Your task to perform on an android device: check data usage Image 0: 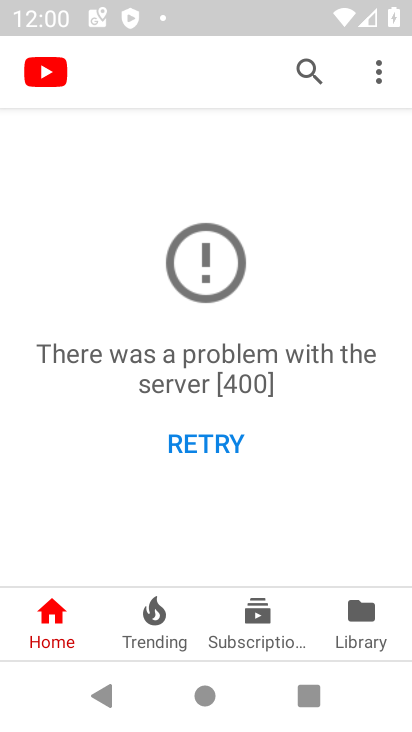
Step 0: press home button
Your task to perform on an android device: check data usage Image 1: 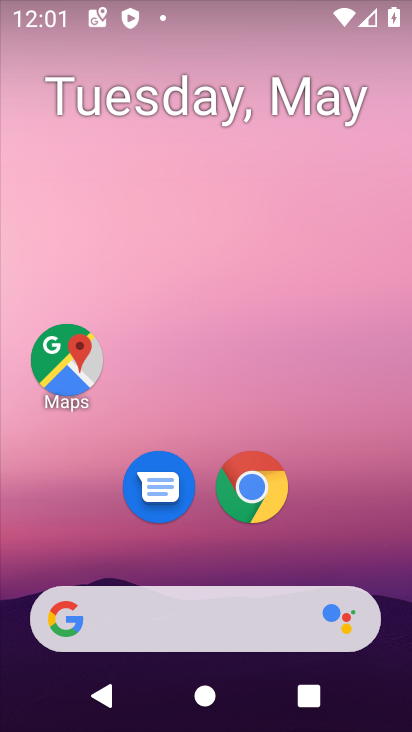
Step 1: drag from (379, 509) to (372, 187)
Your task to perform on an android device: check data usage Image 2: 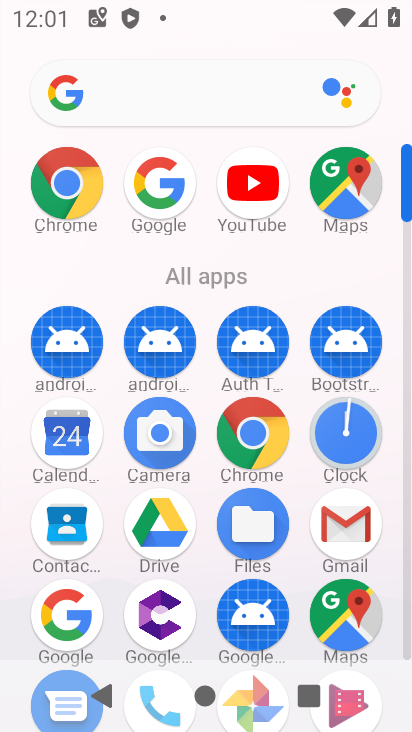
Step 2: drag from (300, 573) to (290, 338)
Your task to perform on an android device: check data usage Image 3: 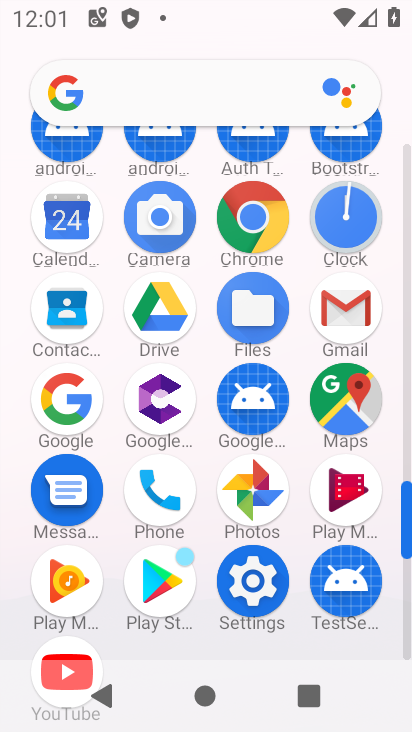
Step 3: drag from (295, 537) to (279, 396)
Your task to perform on an android device: check data usage Image 4: 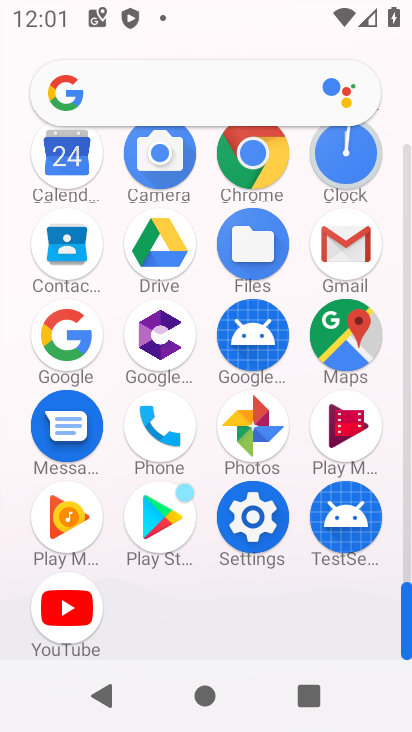
Step 4: click (258, 545)
Your task to perform on an android device: check data usage Image 5: 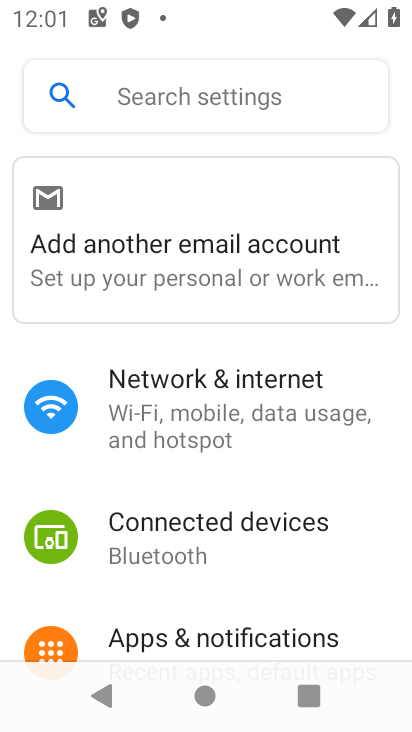
Step 5: drag from (369, 609) to (363, 475)
Your task to perform on an android device: check data usage Image 6: 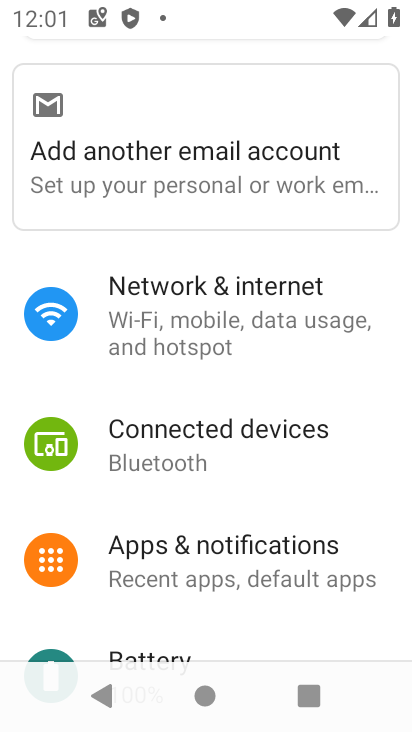
Step 6: drag from (358, 614) to (372, 466)
Your task to perform on an android device: check data usage Image 7: 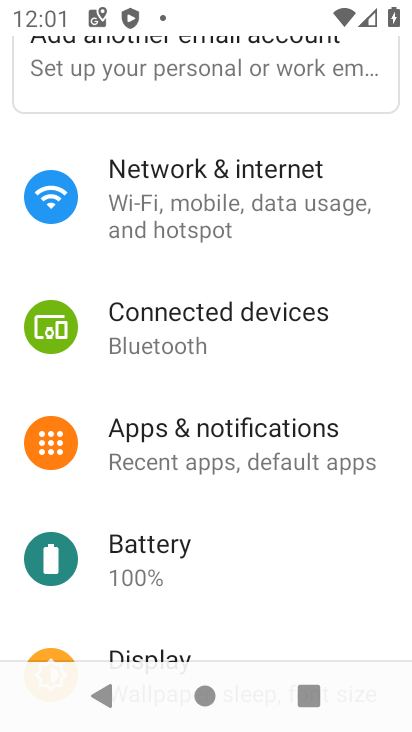
Step 7: drag from (349, 572) to (358, 438)
Your task to perform on an android device: check data usage Image 8: 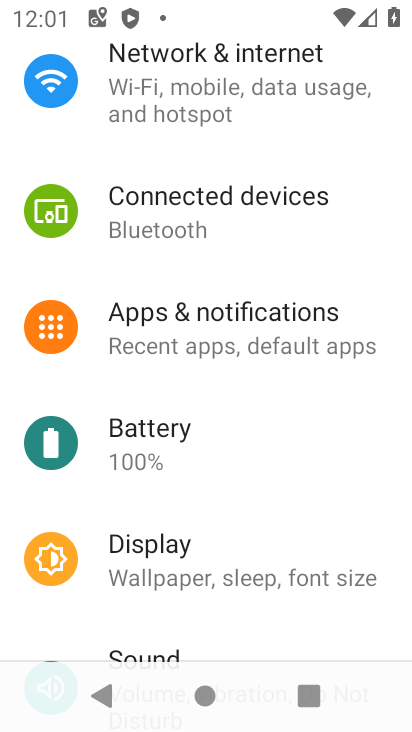
Step 8: drag from (340, 533) to (335, 413)
Your task to perform on an android device: check data usage Image 9: 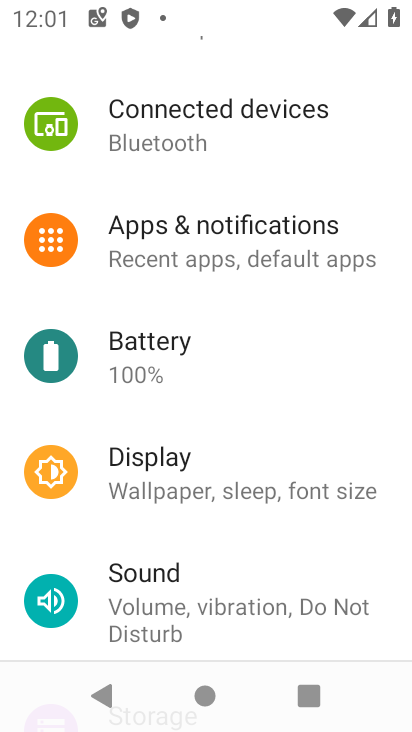
Step 9: drag from (354, 550) to (374, 406)
Your task to perform on an android device: check data usage Image 10: 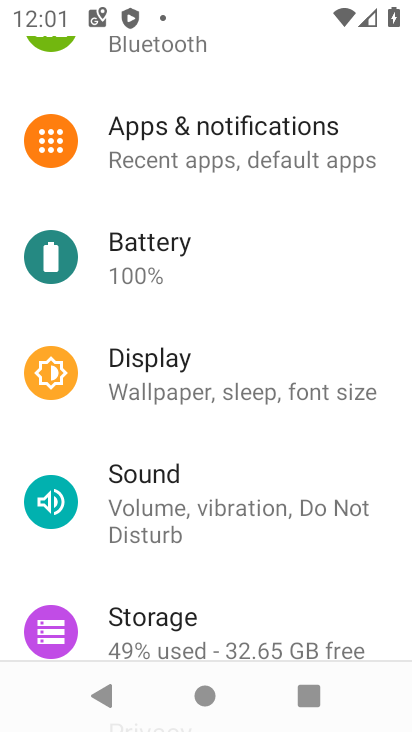
Step 10: drag from (354, 583) to (347, 444)
Your task to perform on an android device: check data usage Image 11: 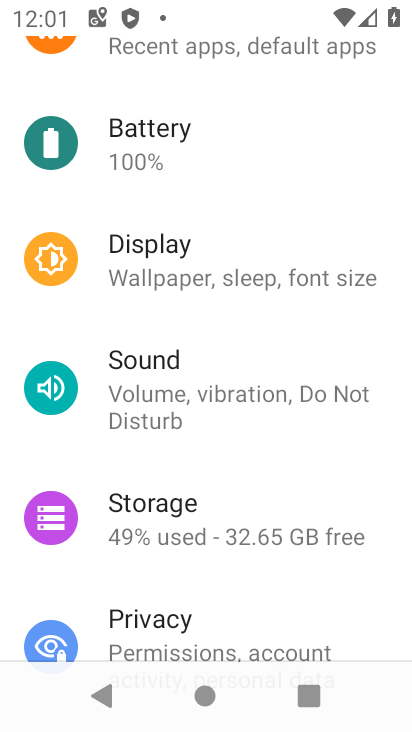
Step 11: drag from (336, 614) to (325, 455)
Your task to perform on an android device: check data usage Image 12: 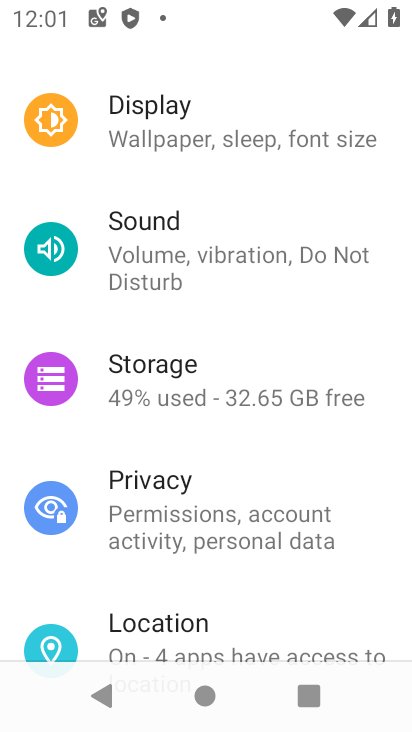
Step 12: drag from (345, 602) to (350, 461)
Your task to perform on an android device: check data usage Image 13: 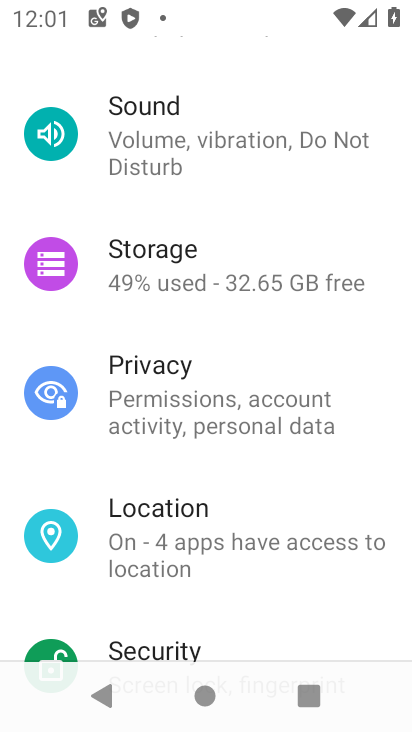
Step 13: drag from (360, 610) to (371, 460)
Your task to perform on an android device: check data usage Image 14: 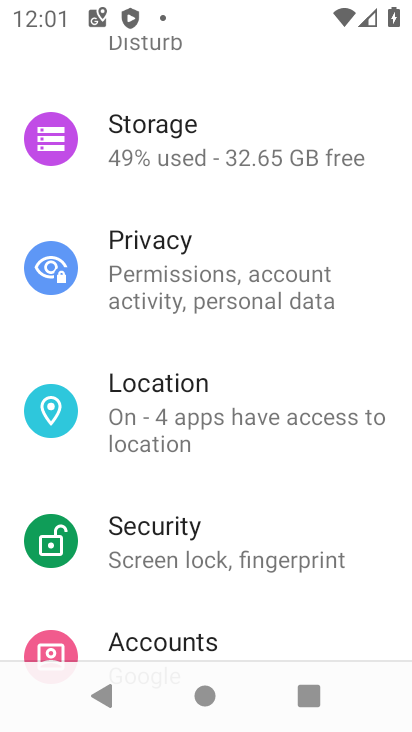
Step 14: drag from (370, 620) to (363, 451)
Your task to perform on an android device: check data usage Image 15: 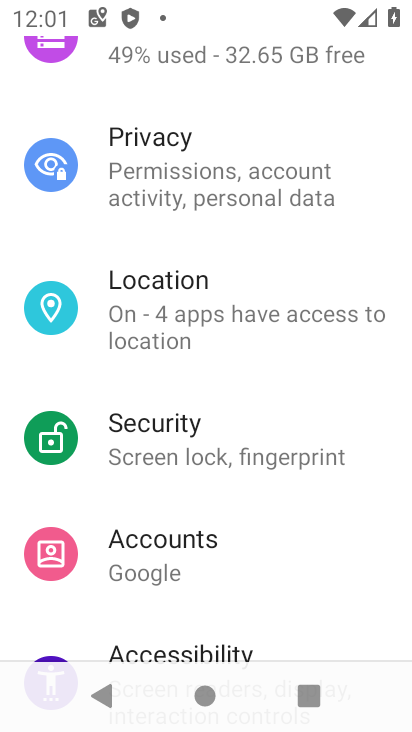
Step 15: drag from (361, 365) to (363, 516)
Your task to perform on an android device: check data usage Image 16: 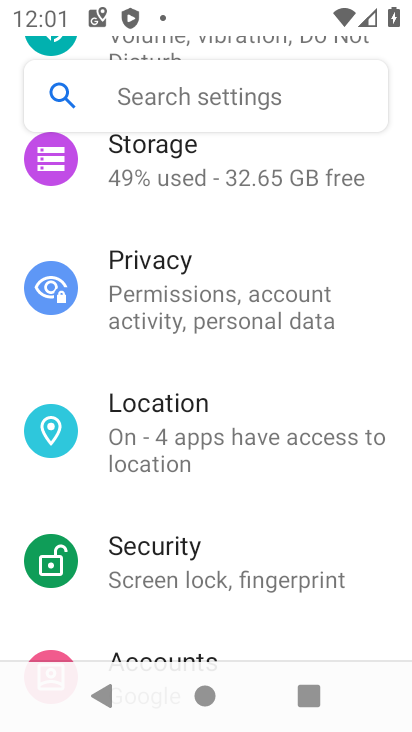
Step 16: drag from (374, 343) to (375, 474)
Your task to perform on an android device: check data usage Image 17: 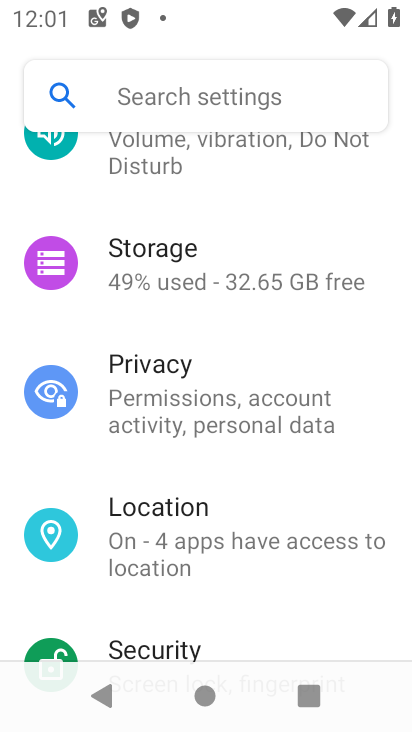
Step 17: drag from (361, 320) to (366, 461)
Your task to perform on an android device: check data usage Image 18: 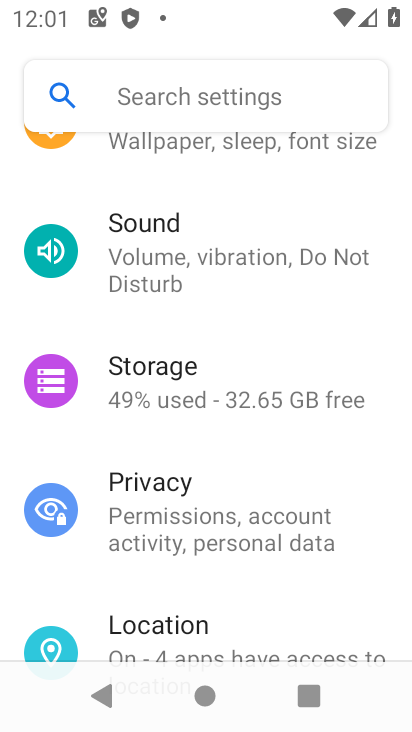
Step 18: drag from (377, 304) to (395, 440)
Your task to perform on an android device: check data usage Image 19: 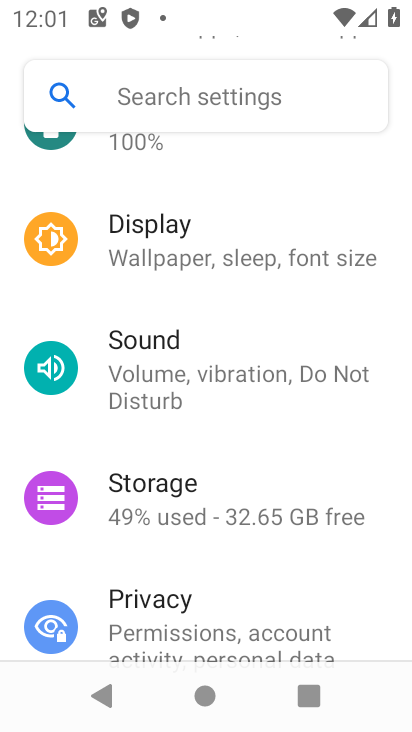
Step 19: drag from (389, 271) to (389, 419)
Your task to perform on an android device: check data usage Image 20: 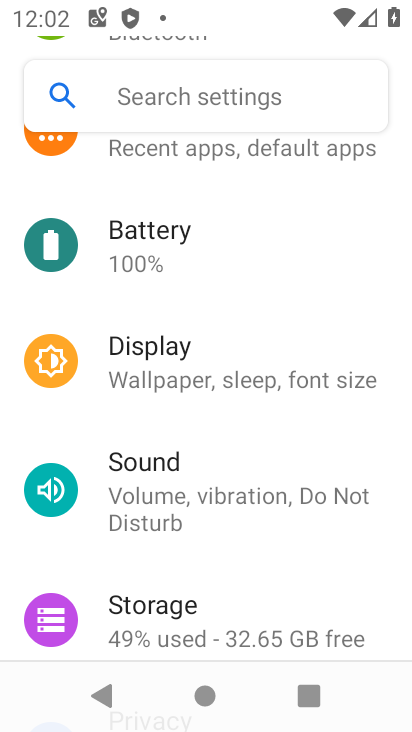
Step 20: drag from (371, 243) to (376, 373)
Your task to perform on an android device: check data usage Image 21: 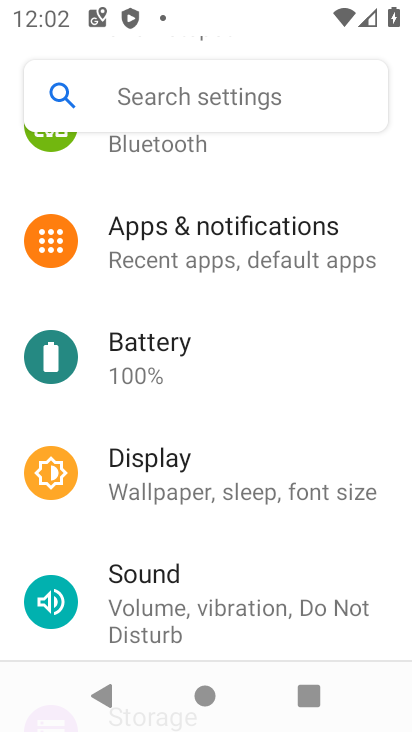
Step 21: drag from (382, 204) to (362, 402)
Your task to perform on an android device: check data usage Image 22: 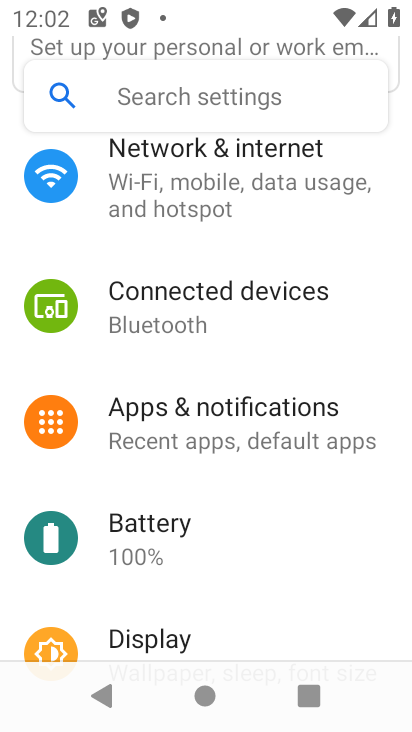
Step 22: click (333, 177)
Your task to perform on an android device: check data usage Image 23: 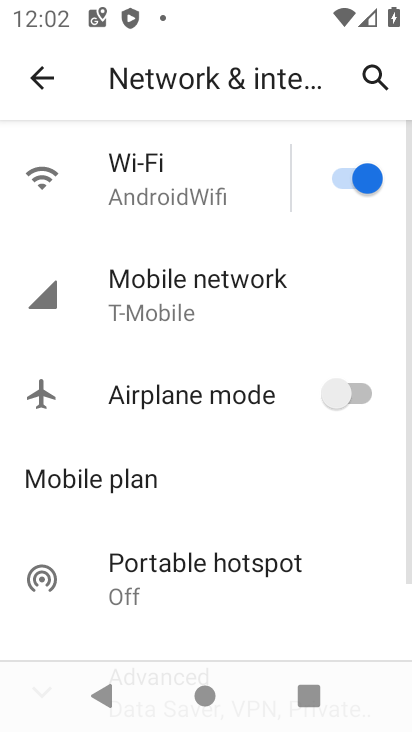
Step 23: click (202, 309)
Your task to perform on an android device: check data usage Image 24: 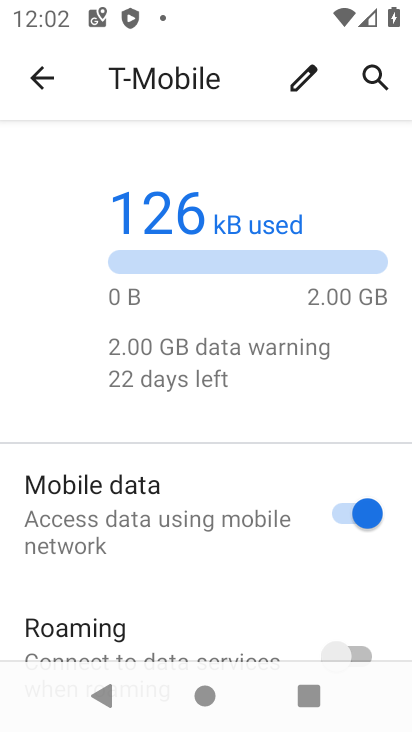
Step 24: drag from (207, 522) to (191, 358)
Your task to perform on an android device: check data usage Image 25: 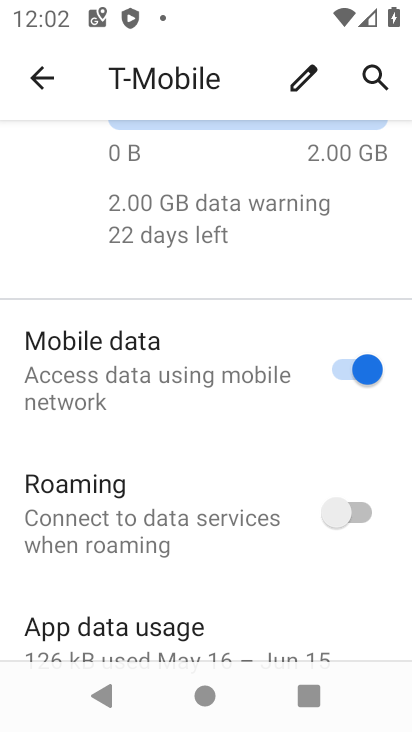
Step 25: drag from (225, 542) to (232, 385)
Your task to perform on an android device: check data usage Image 26: 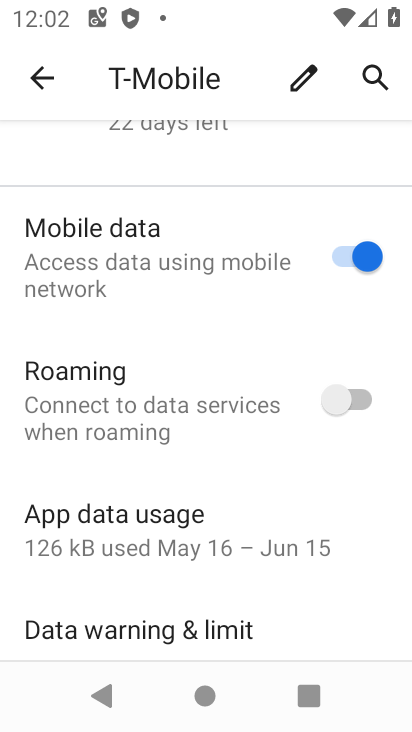
Step 26: click (180, 535)
Your task to perform on an android device: check data usage Image 27: 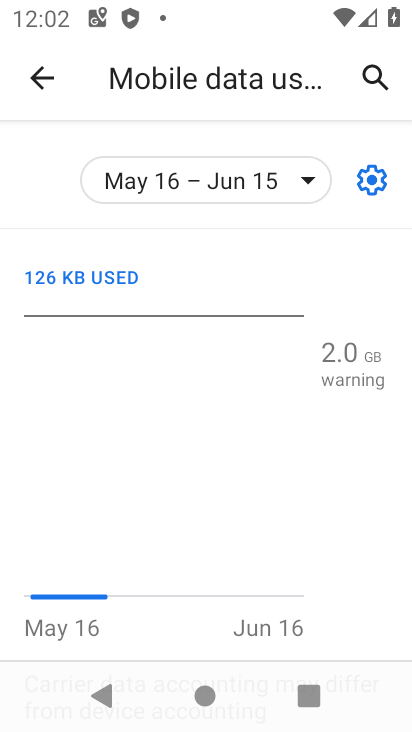
Step 27: task complete